Your task to perform on an android device: Is it going to rain tomorrow? Image 0: 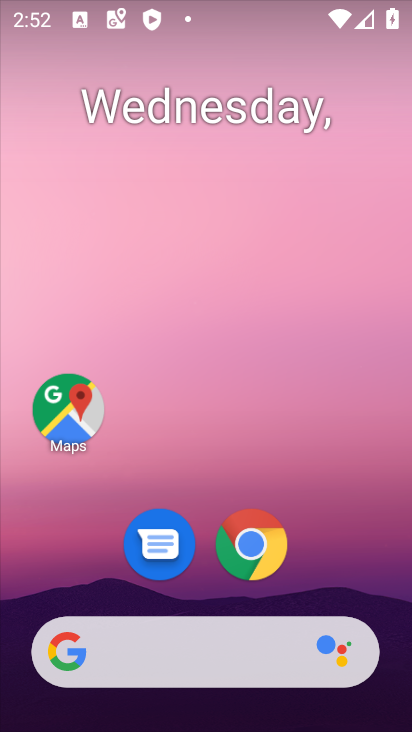
Step 0: drag from (9, 166) to (401, 245)
Your task to perform on an android device: Is it going to rain tomorrow? Image 1: 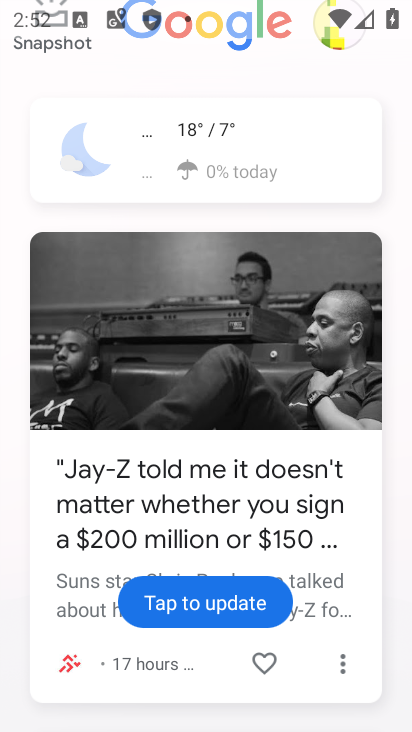
Step 1: click (249, 149)
Your task to perform on an android device: Is it going to rain tomorrow? Image 2: 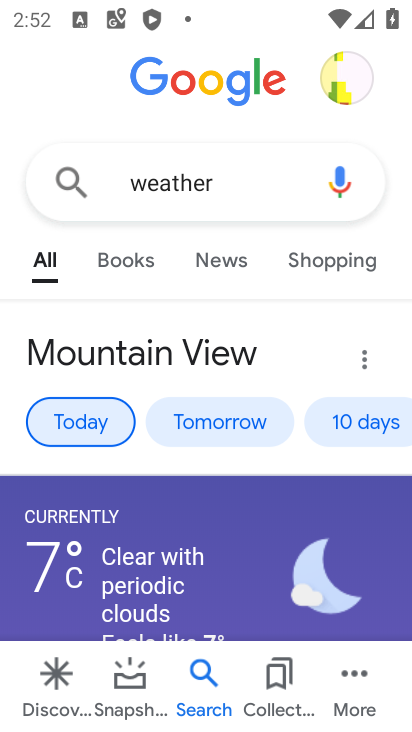
Step 2: click (207, 425)
Your task to perform on an android device: Is it going to rain tomorrow? Image 3: 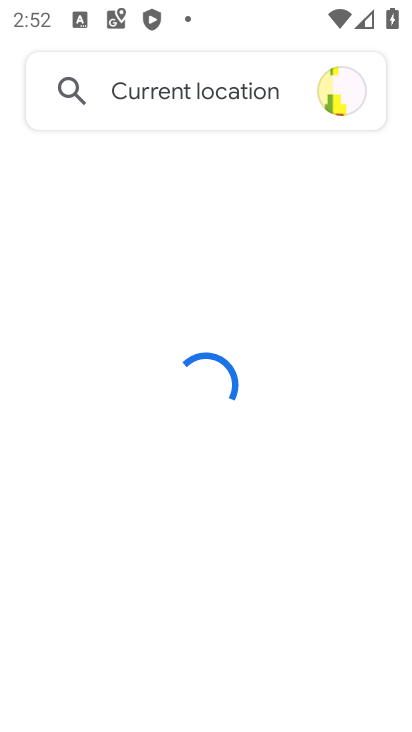
Step 3: drag from (285, 564) to (226, 225)
Your task to perform on an android device: Is it going to rain tomorrow? Image 4: 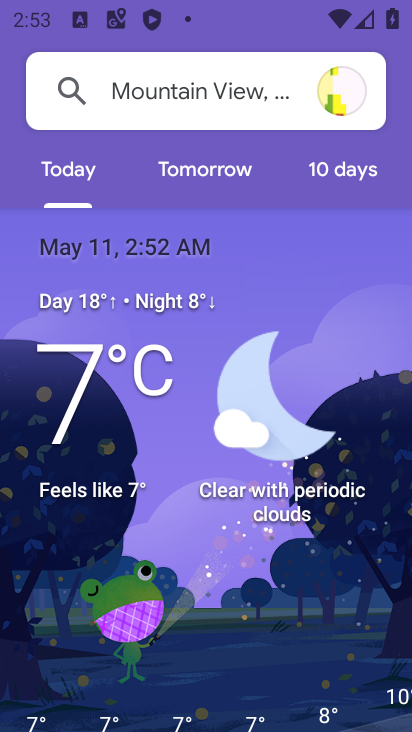
Step 4: drag from (267, 566) to (259, 399)
Your task to perform on an android device: Is it going to rain tomorrow? Image 5: 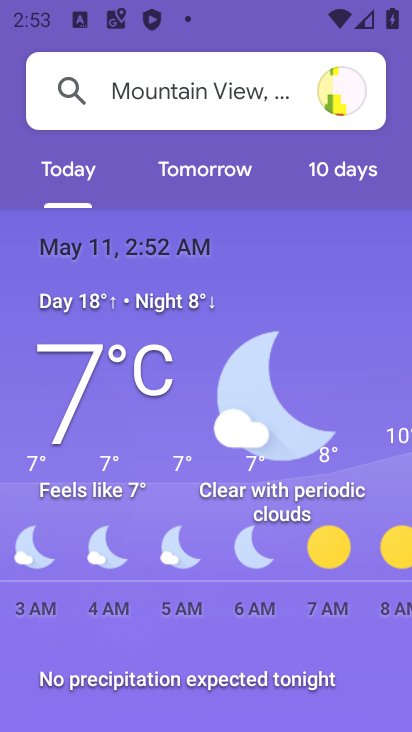
Step 5: click (196, 162)
Your task to perform on an android device: Is it going to rain tomorrow? Image 6: 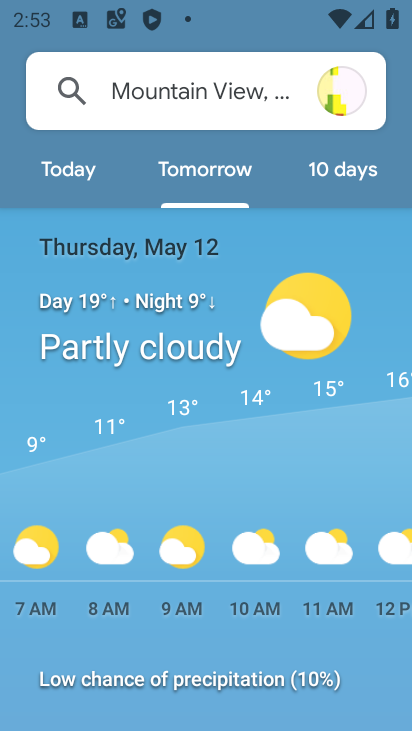
Step 6: task complete